Your task to perform on an android device: set default search engine in the chrome app Image 0: 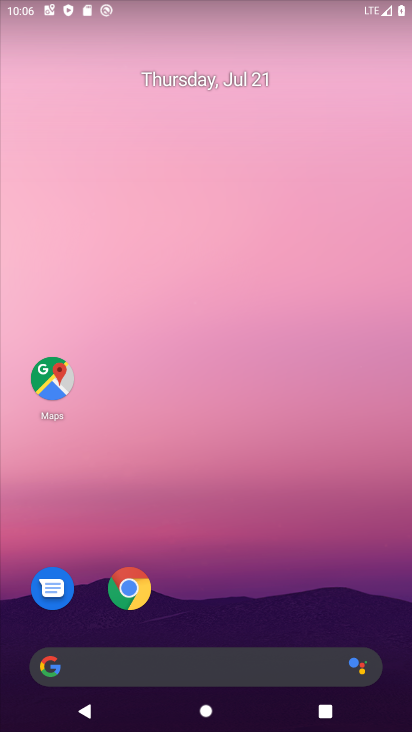
Step 0: click (130, 585)
Your task to perform on an android device: set default search engine in the chrome app Image 1: 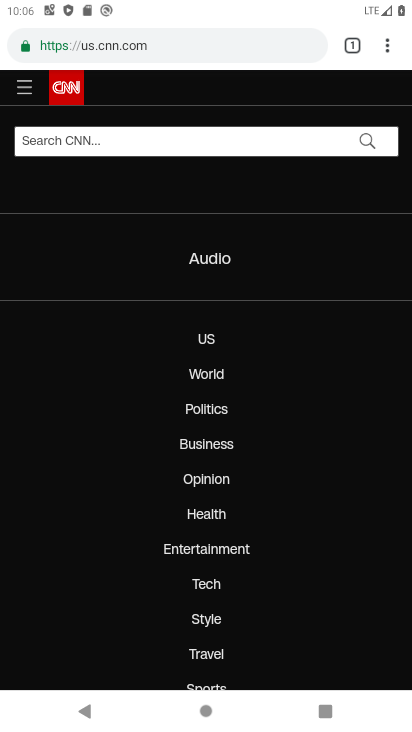
Step 1: click (389, 44)
Your task to perform on an android device: set default search engine in the chrome app Image 2: 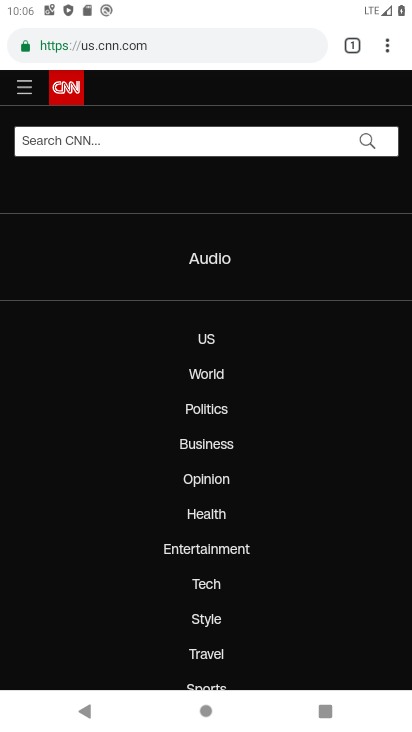
Step 2: click (389, 47)
Your task to perform on an android device: set default search engine in the chrome app Image 3: 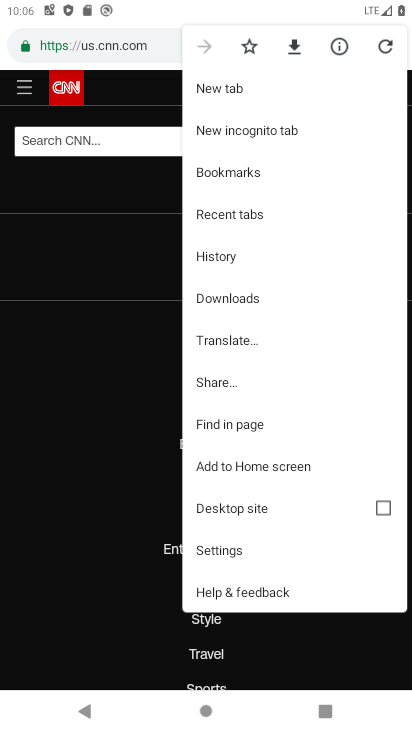
Step 3: click (217, 549)
Your task to perform on an android device: set default search engine in the chrome app Image 4: 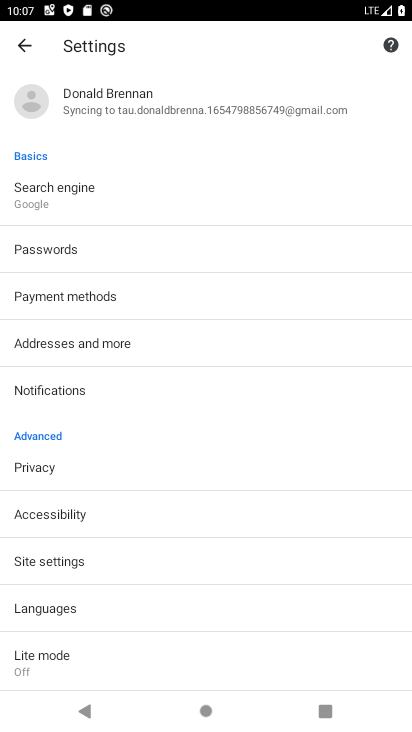
Step 4: click (77, 188)
Your task to perform on an android device: set default search engine in the chrome app Image 5: 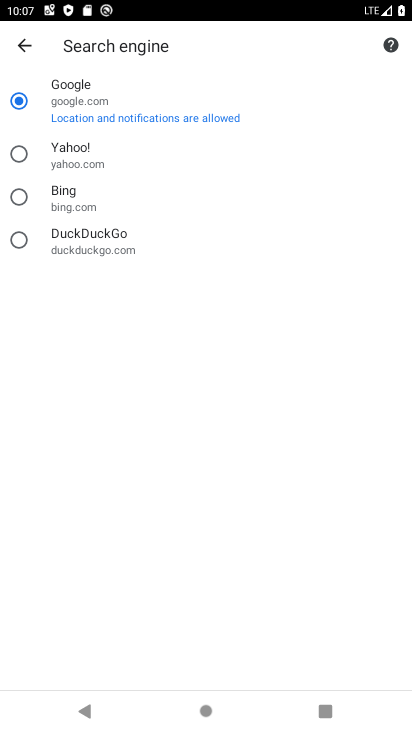
Step 5: task complete